Your task to perform on an android device: Open the phone app and click the voicemail tab. Image 0: 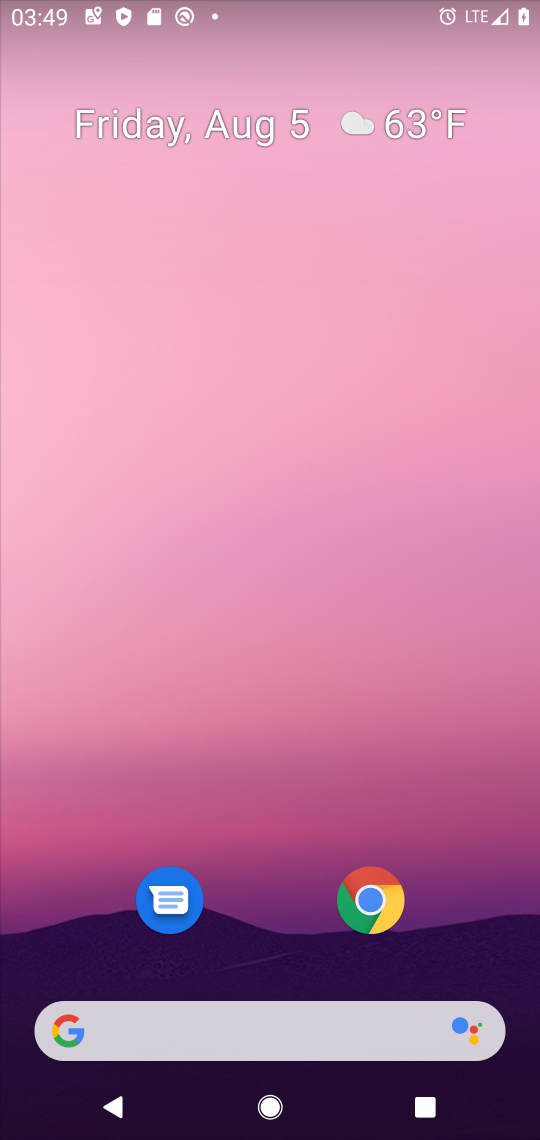
Step 0: click (353, 4)
Your task to perform on an android device: Open the phone app and click the voicemail tab. Image 1: 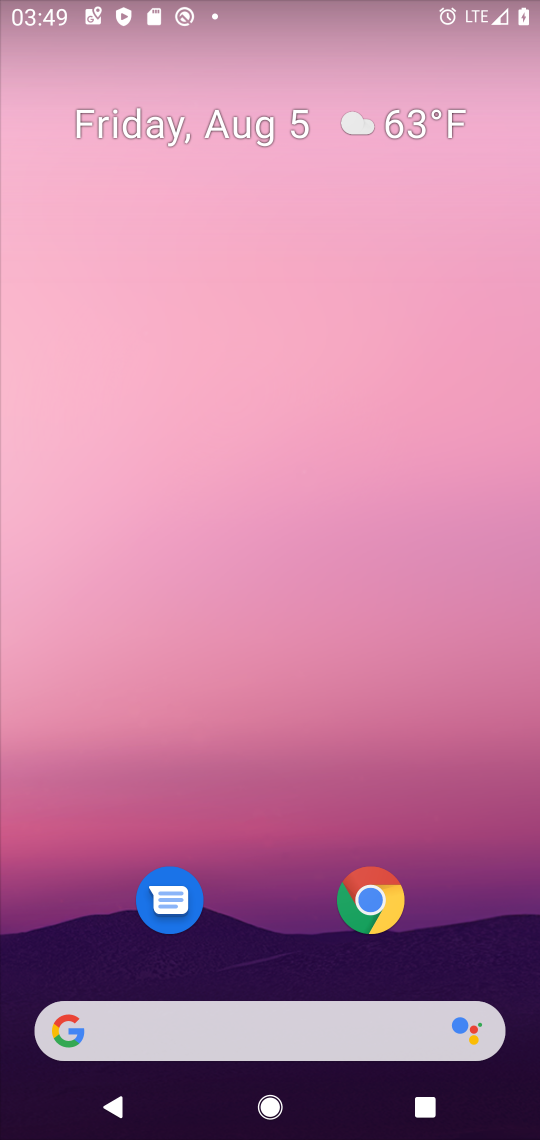
Step 1: drag from (315, 751) to (406, 90)
Your task to perform on an android device: Open the phone app and click the voicemail tab. Image 2: 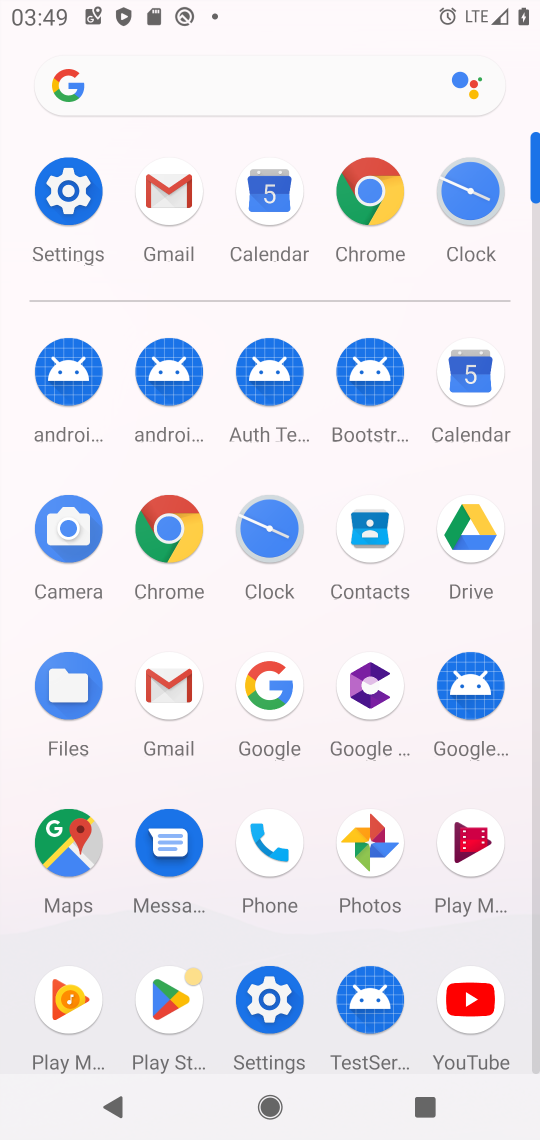
Step 2: click (271, 846)
Your task to perform on an android device: Open the phone app and click the voicemail tab. Image 3: 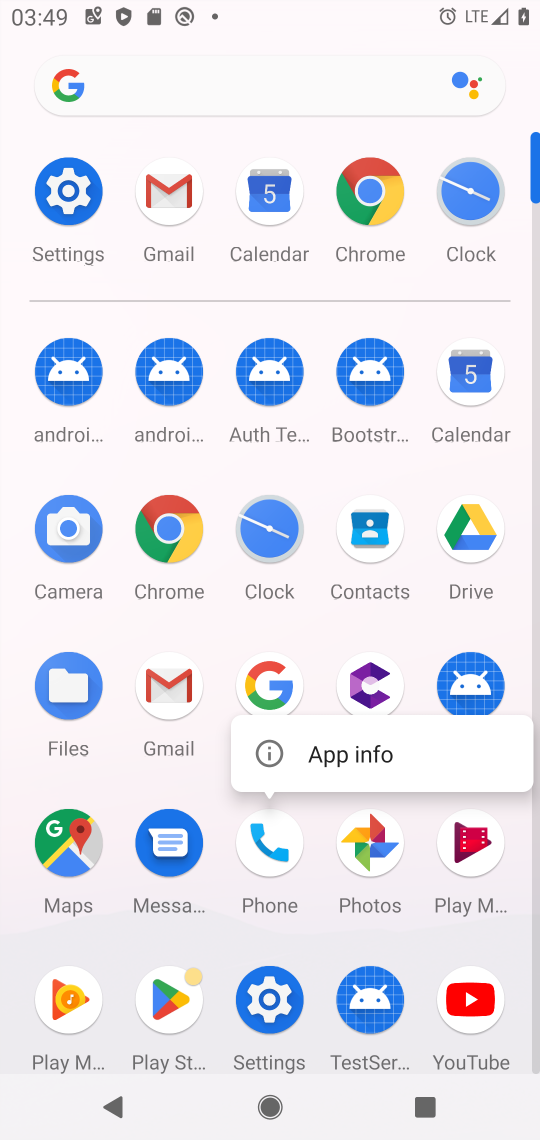
Step 3: click (285, 843)
Your task to perform on an android device: Open the phone app and click the voicemail tab. Image 4: 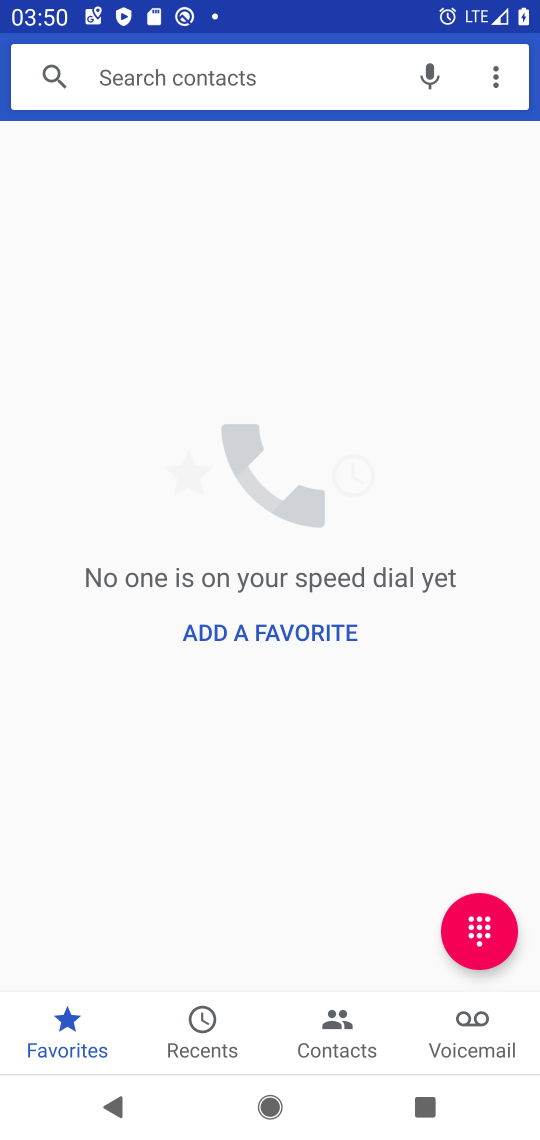
Step 4: click (443, 1028)
Your task to perform on an android device: Open the phone app and click the voicemail tab. Image 5: 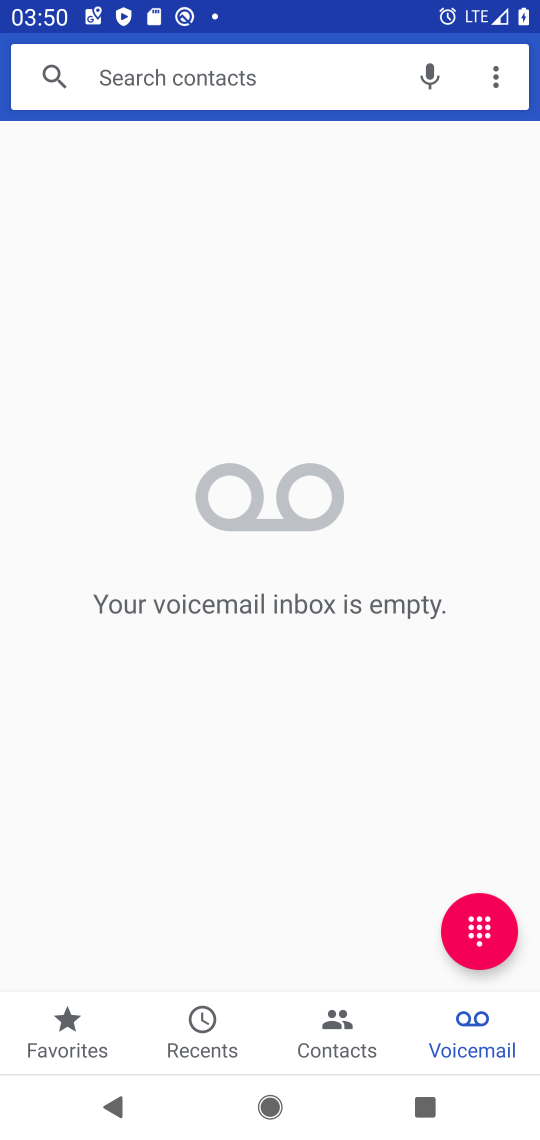
Step 5: task complete